Your task to perform on an android device: turn off data saver in the chrome app Image 0: 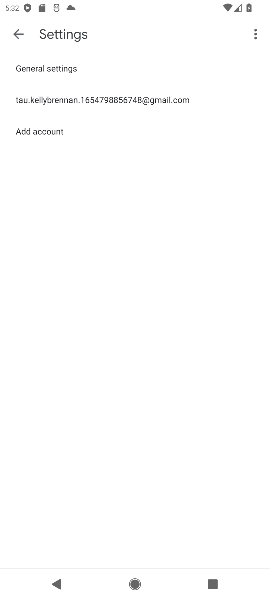
Step 0: press home button
Your task to perform on an android device: turn off data saver in the chrome app Image 1: 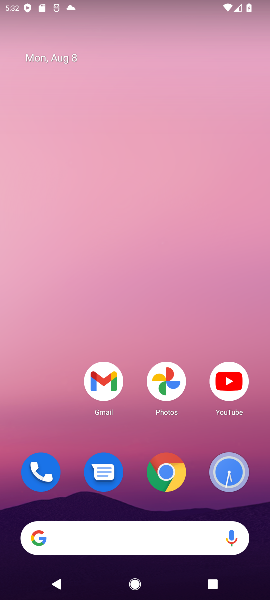
Step 1: click (173, 477)
Your task to perform on an android device: turn off data saver in the chrome app Image 2: 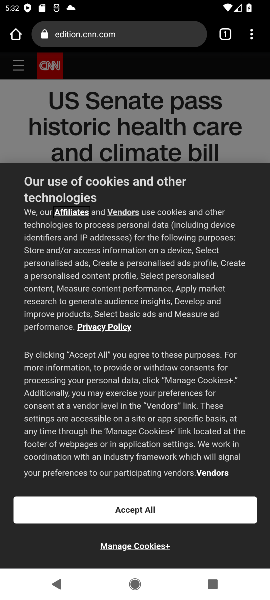
Step 2: drag from (252, 36) to (148, 433)
Your task to perform on an android device: turn off data saver in the chrome app Image 3: 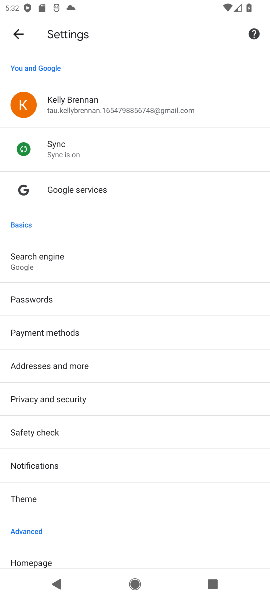
Step 3: drag from (164, 494) to (159, 207)
Your task to perform on an android device: turn off data saver in the chrome app Image 4: 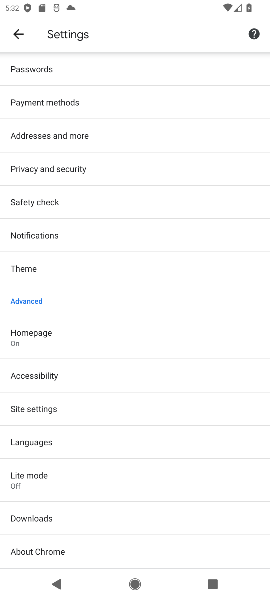
Step 4: click (25, 477)
Your task to perform on an android device: turn off data saver in the chrome app Image 5: 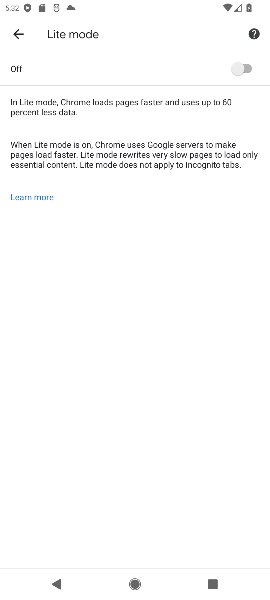
Step 5: task complete